Your task to perform on an android device: Add "asus rog" to the cart on newegg Image 0: 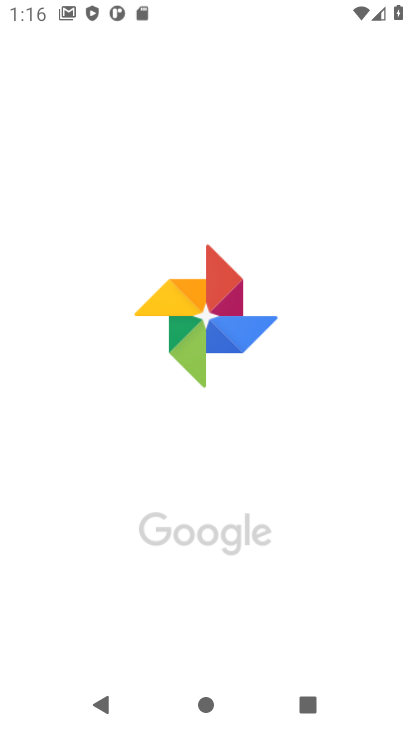
Step 0: press home button
Your task to perform on an android device: Add "asus rog" to the cart on newegg Image 1: 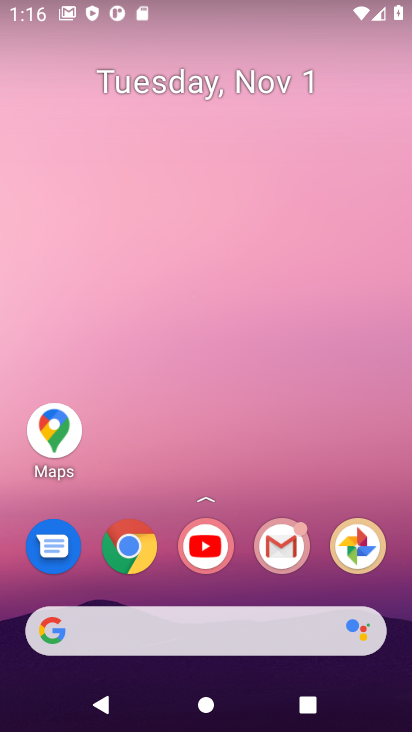
Step 1: click (53, 630)
Your task to perform on an android device: Add "asus rog" to the cart on newegg Image 2: 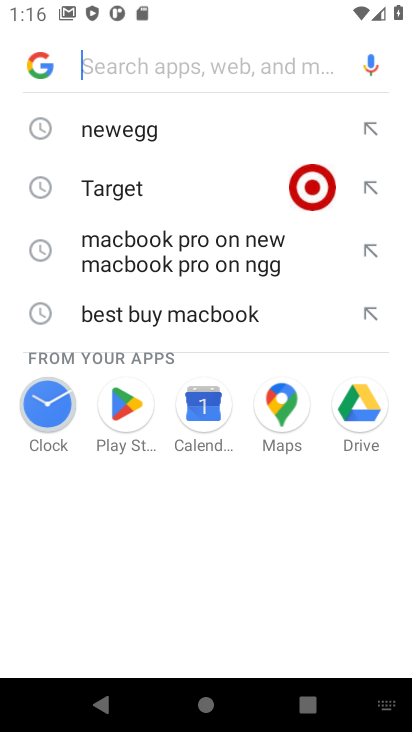
Step 2: click (160, 131)
Your task to perform on an android device: Add "asus rog" to the cart on newegg Image 3: 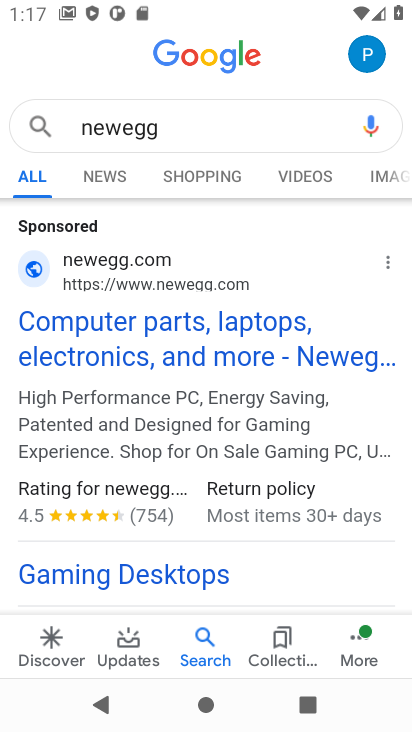
Step 3: click (176, 328)
Your task to perform on an android device: Add "asus rog" to the cart on newegg Image 4: 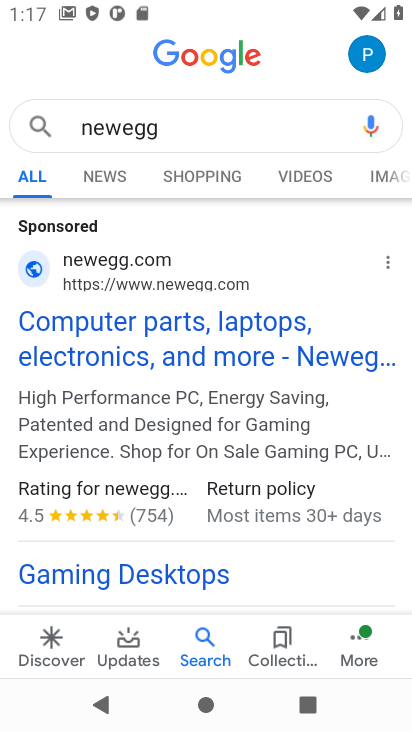
Step 4: click (176, 328)
Your task to perform on an android device: Add "asus rog" to the cart on newegg Image 5: 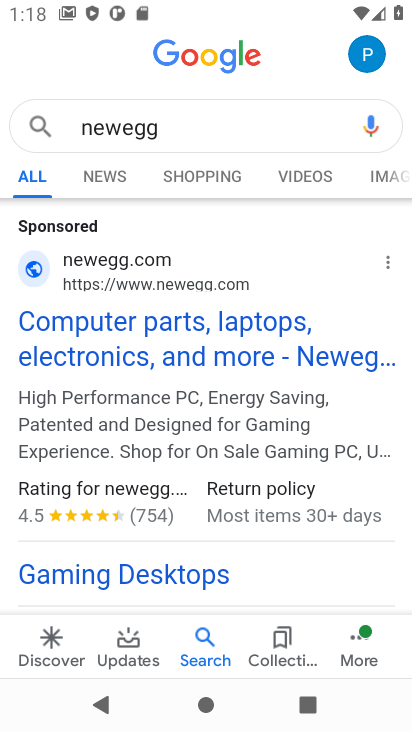
Step 5: click (149, 343)
Your task to perform on an android device: Add "asus rog" to the cart on newegg Image 6: 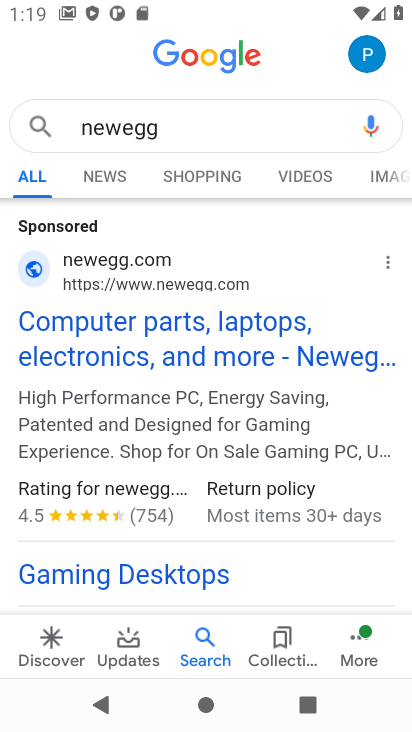
Step 6: click (173, 328)
Your task to perform on an android device: Add "asus rog" to the cart on newegg Image 7: 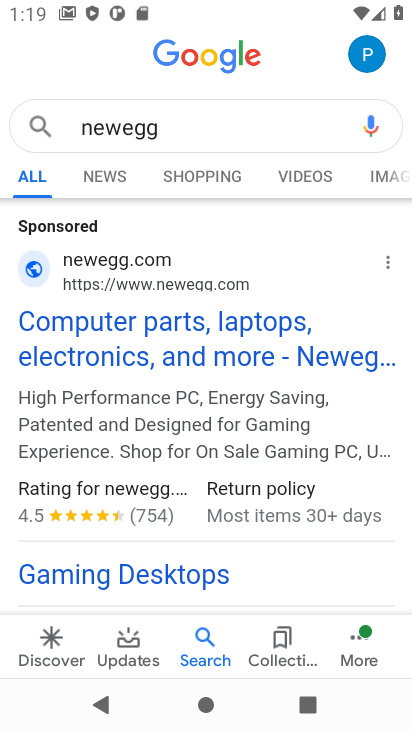
Step 7: task complete